Your task to perform on an android device: find which apps use the phone's location Image 0: 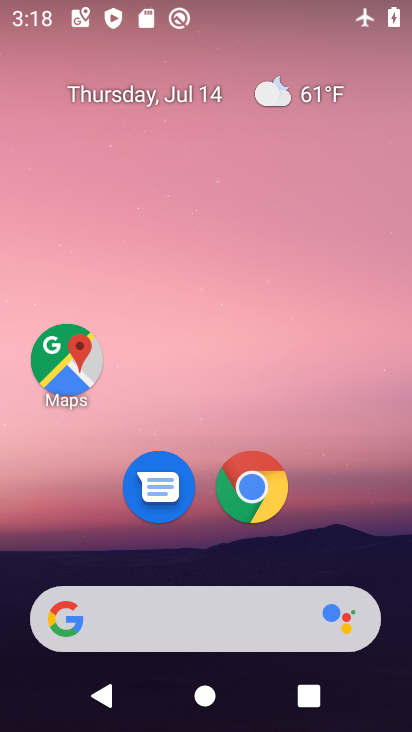
Step 0: drag from (212, 474) to (319, 21)
Your task to perform on an android device: find which apps use the phone's location Image 1: 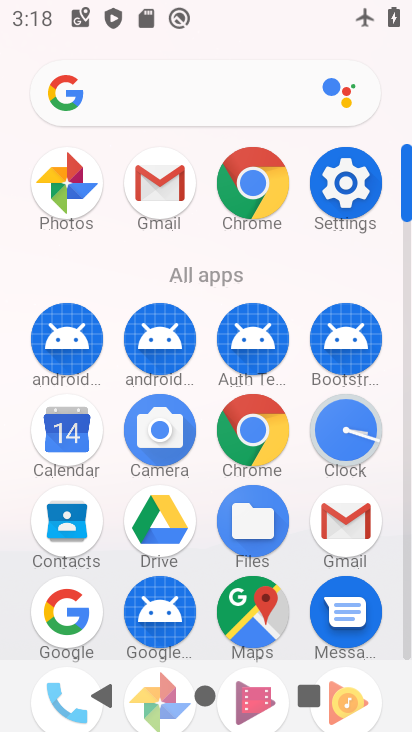
Step 1: click (326, 437)
Your task to perform on an android device: find which apps use the phone's location Image 2: 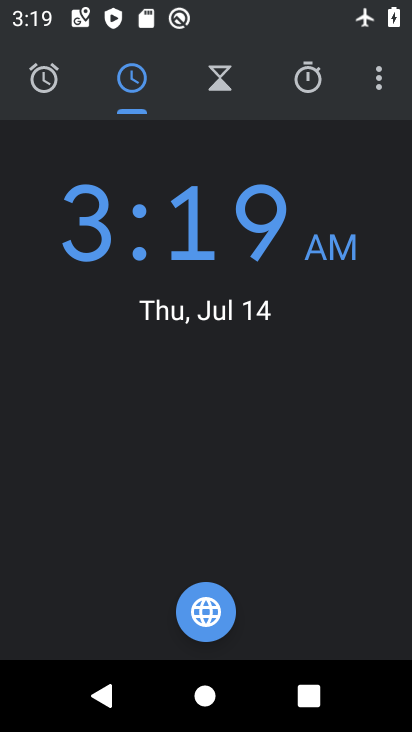
Step 2: press back button
Your task to perform on an android device: find which apps use the phone's location Image 3: 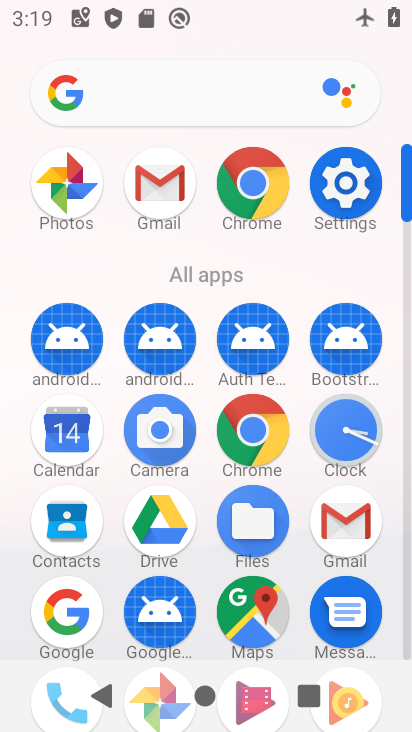
Step 3: click (360, 179)
Your task to perform on an android device: find which apps use the phone's location Image 4: 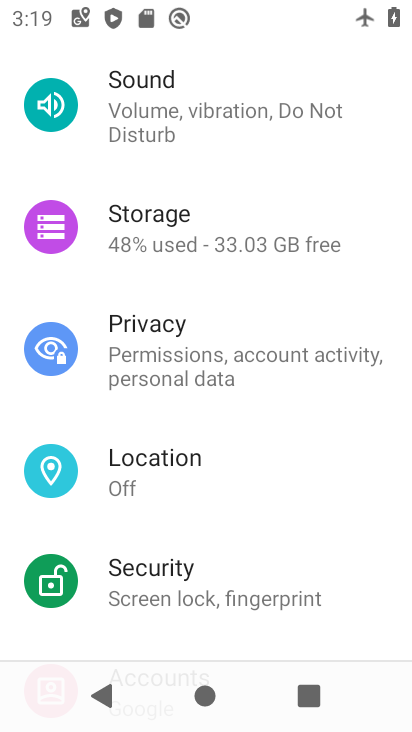
Step 4: drag from (269, 156) to (331, 215)
Your task to perform on an android device: find which apps use the phone's location Image 5: 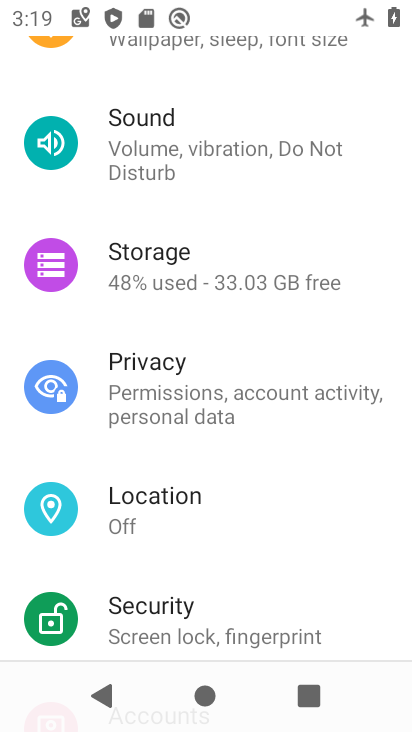
Step 5: click (180, 510)
Your task to perform on an android device: find which apps use the phone's location Image 6: 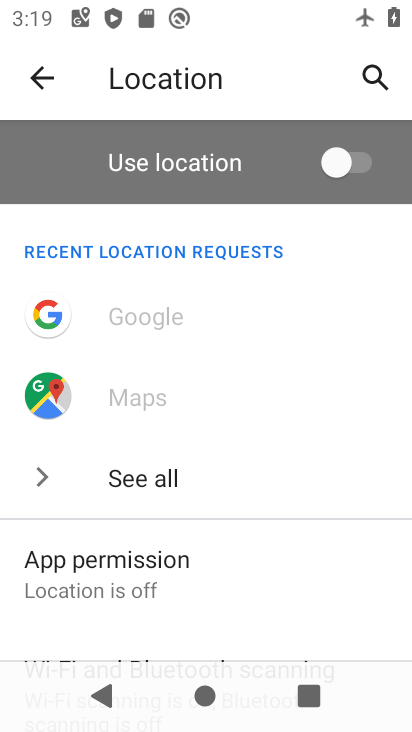
Step 6: click (120, 572)
Your task to perform on an android device: find which apps use the phone's location Image 7: 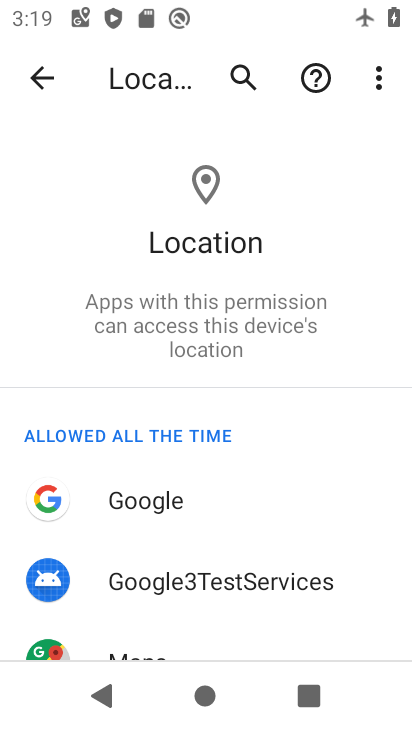
Step 7: task complete